Your task to perform on an android device: star an email in the gmail app Image 0: 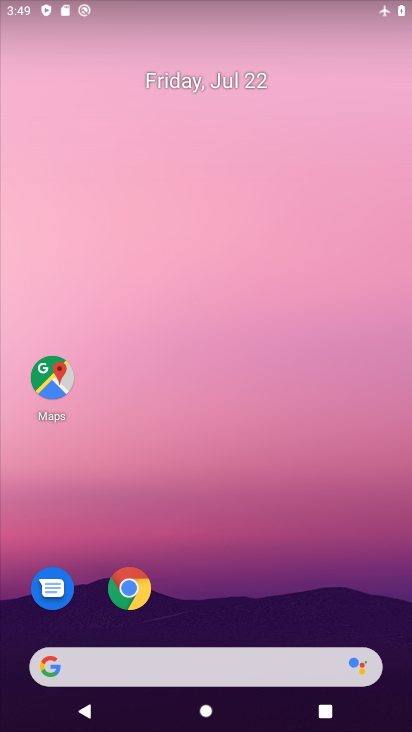
Step 0: drag from (224, 615) to (238, 60)
Your task to perform on an android device: star an email in the gmail app Image 1: 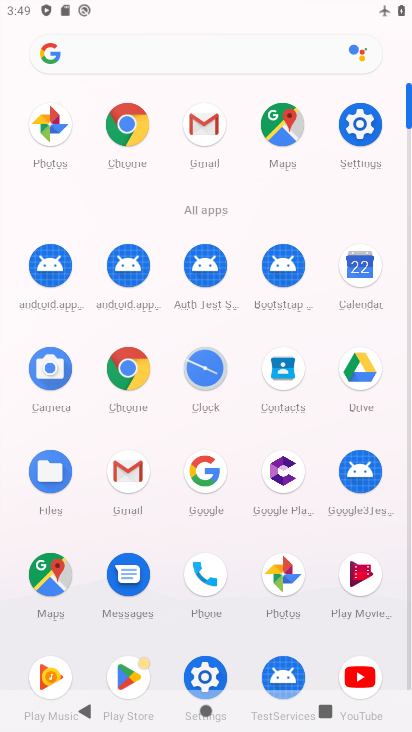
Step 1: click (206, 109)
Your task to perform on an android device: star an email in the gmail app Image 2: 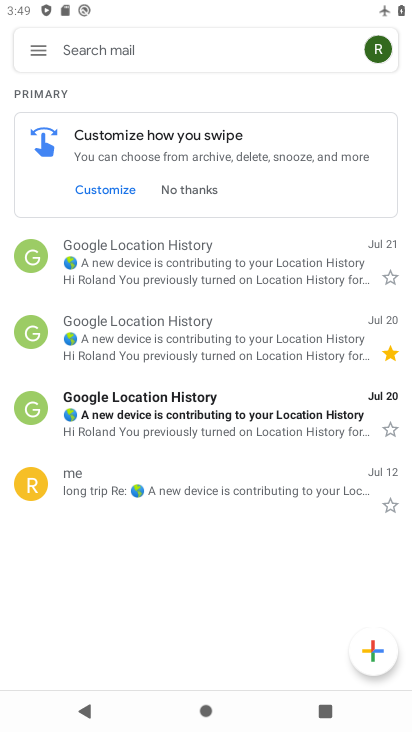
Step 2: click (386, 275)
Your task to perform on an android device: star an email in the gmail app Image 3: 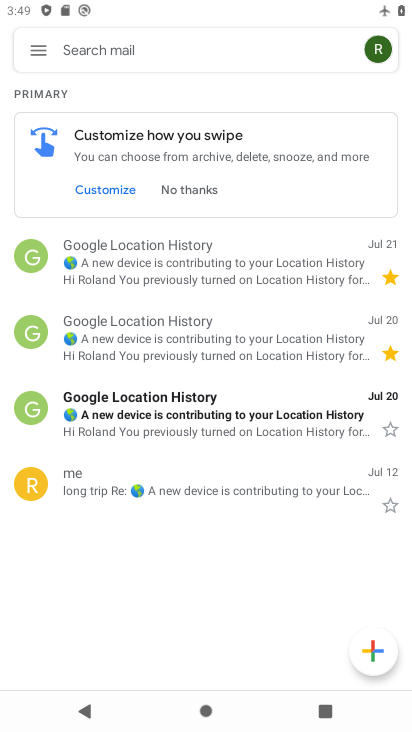
Step 3: task complete